Your task to perform on an android device: Toggle the flashlight Image 0: 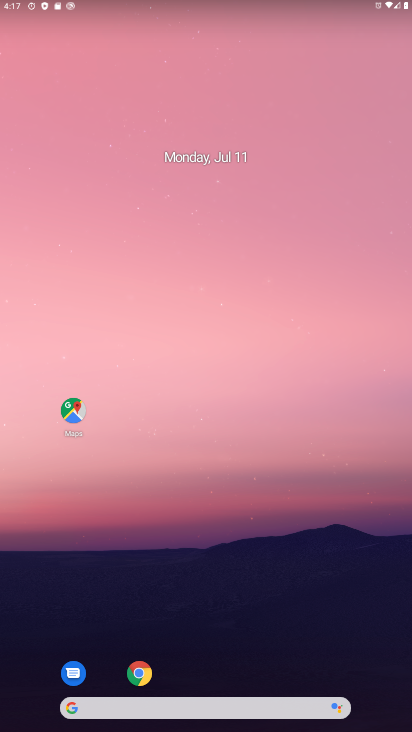
Step 0: drag from (339, 654) to (368, 156)
Your task to perform on an android device: Toggle the flashlight Image 1: 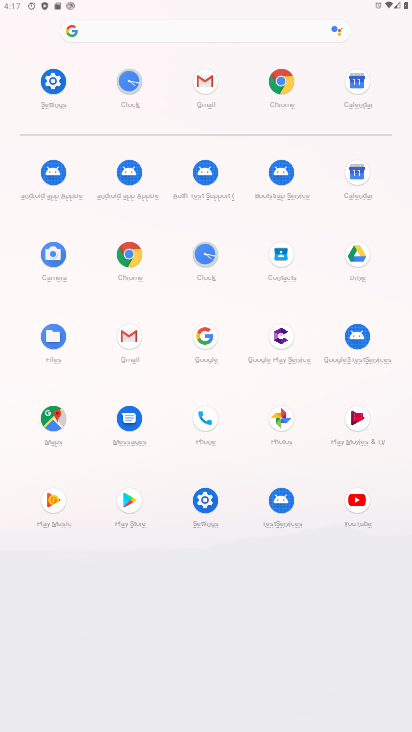
Step 1: task complete